Your task to perform on an android device: Go to Google Image 0: 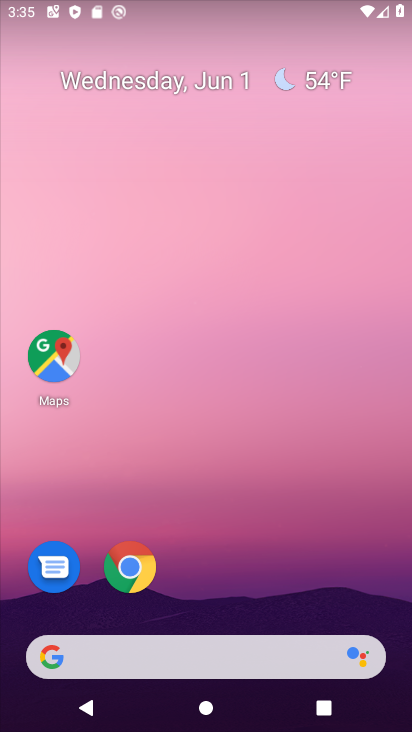
Step 0: drag from (225, 631) to (161, 99)
Your task to perform on an android device: Go to Google Image 1: 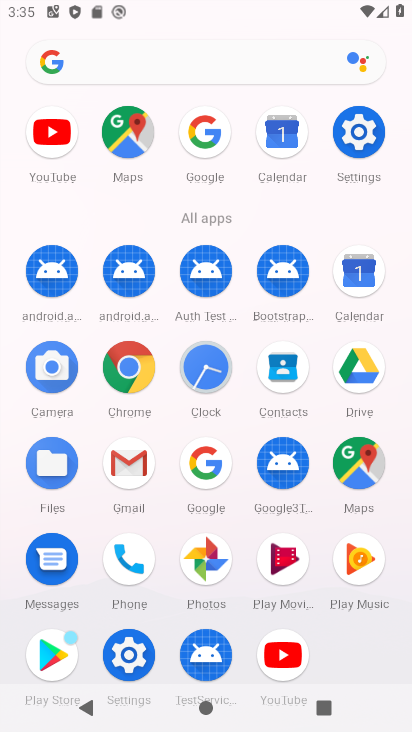
Step 1: click (211, 464)
Your task to perform on an android device: Go to Google Image 2: 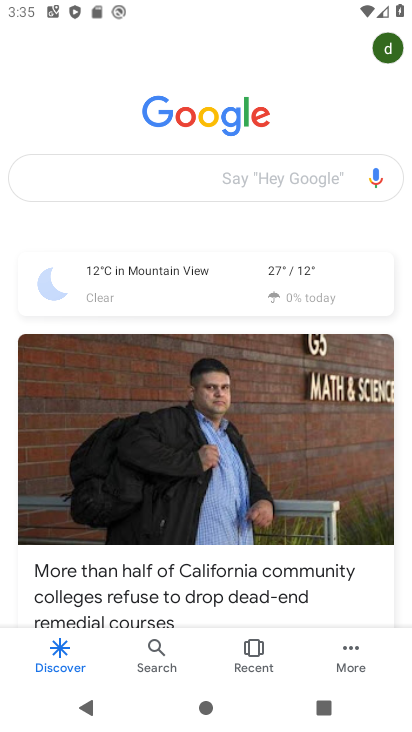
Step 2: task complete